Your task to perform on an android device: turn on notifications settings in the gmail app Image 0: 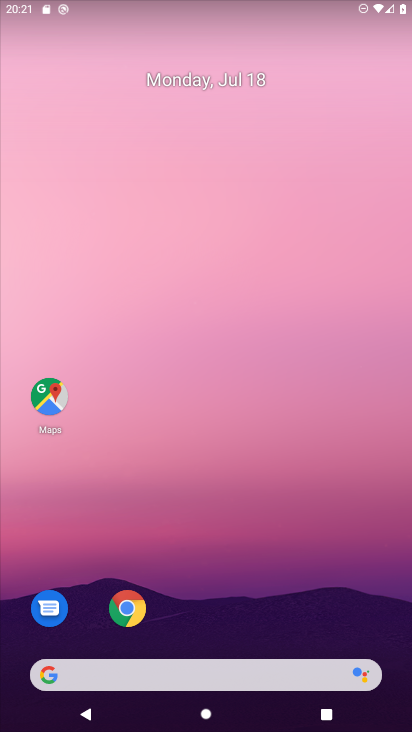
Step 0: drag from (193, 625) to (278, 114)
Your task to perform on an android device: turn on notifications settings in the gmail app Image 1: 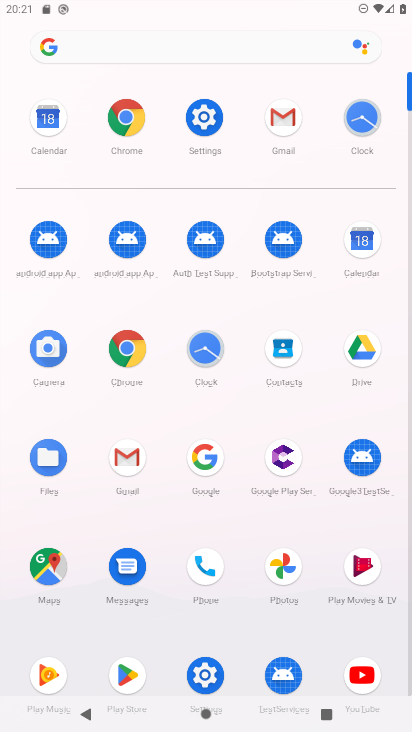
Step 1: click (288, 115)
Your task to perform on an android device: turn on notifications settings in the gmail app Image 2: 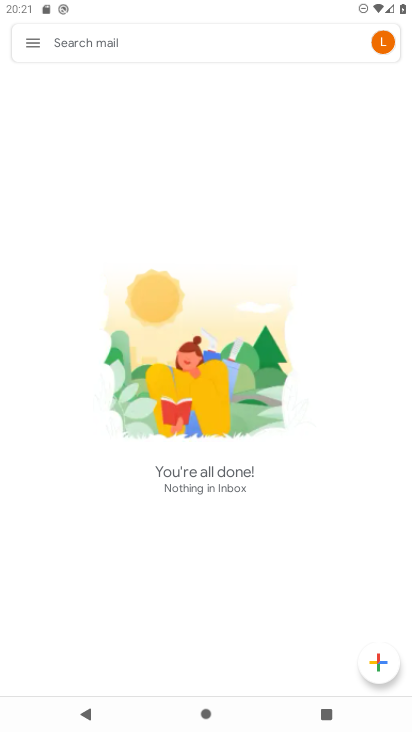
Step 2: click (32, 46)
Your task to perform on an android device: turn on notifications settings in the gmail app Image 3: 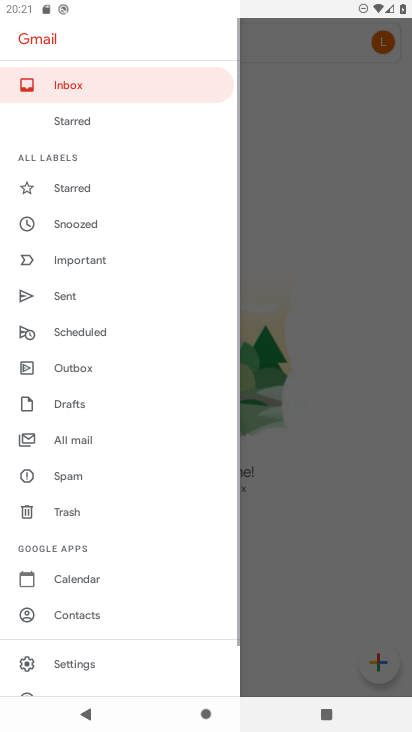
Step 3: click (70, 661)
Your task to perform on an android device: turn on notifications settings in the gmail app Image 4: 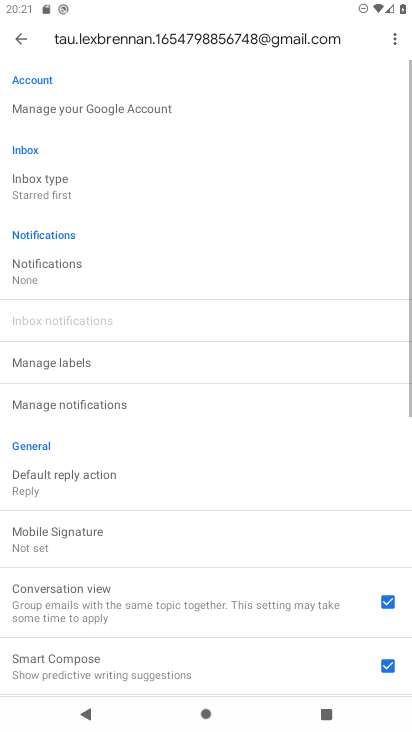
Step 4: click (39, 258)
Your task to perform on an android device: turn on notifications settings in the gmail app Image 5: 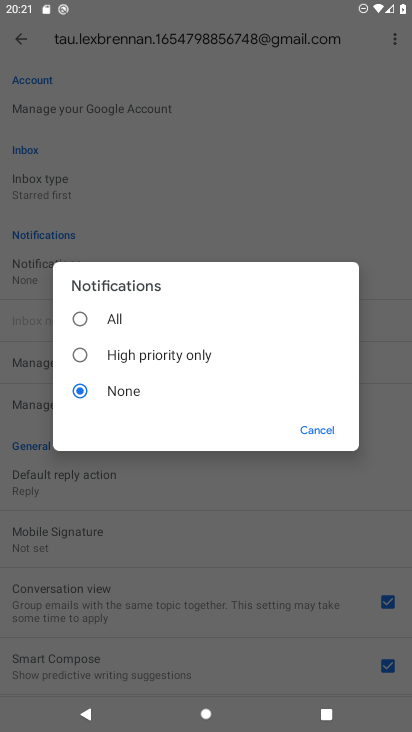
Step 5: click (80, 322)
Your task to perform on an android device: turn on notifications settings in the gmail app Image 6: 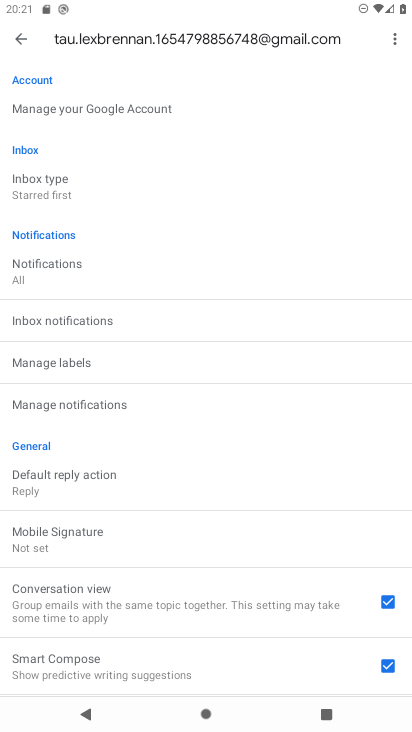
Step 6: task complete